Your task to perform on an android device: toggle improve location accuracy Image 0: 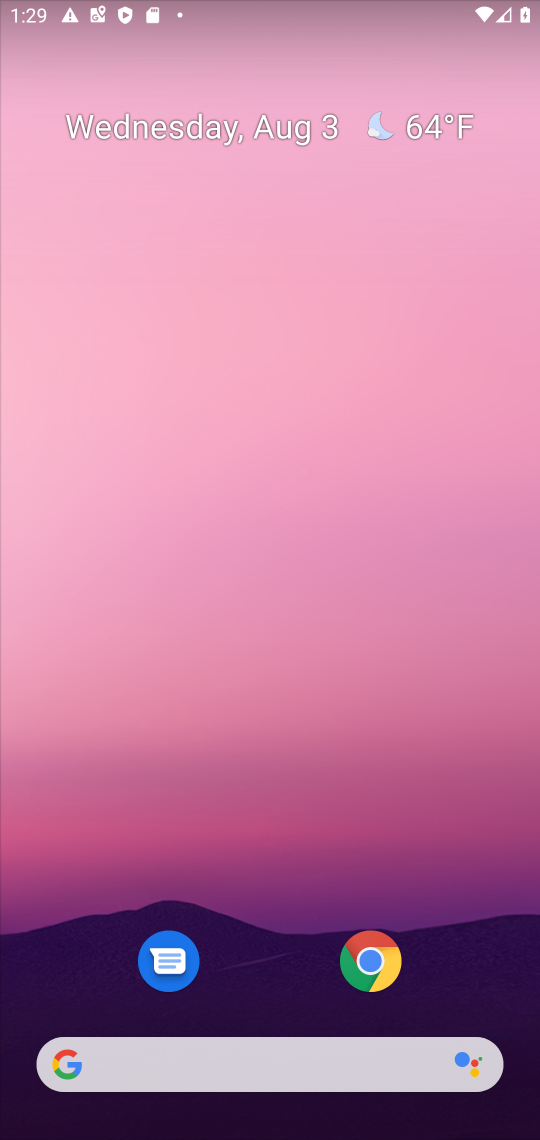
Step 0: drag from (302, 874) to (341, 56)
Your task to perform on an android device: toggle improve location accuracy Image 1: 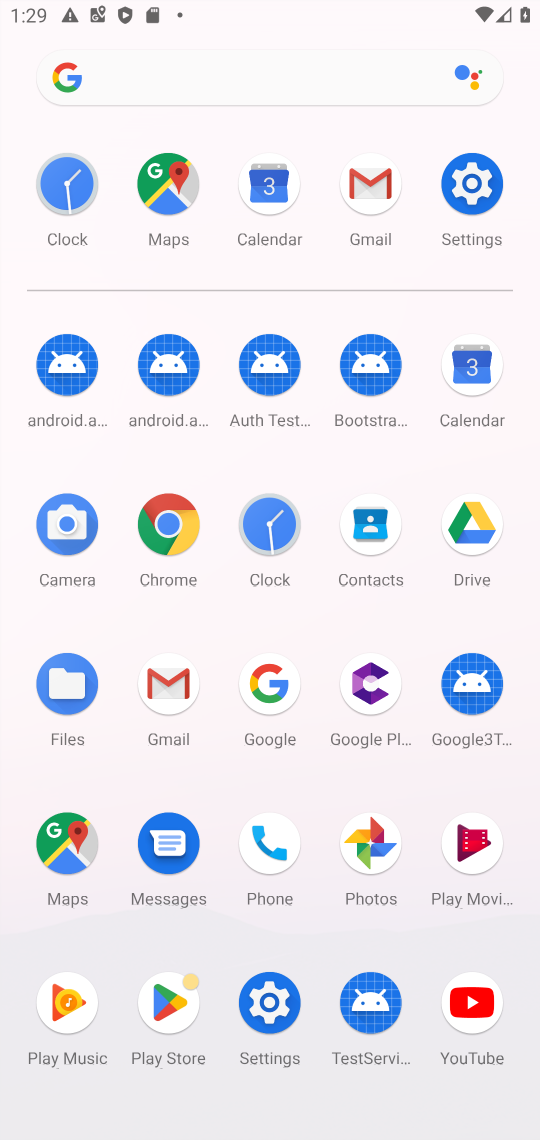
Step 1: click (464, 188)
Your task to perform on an android device: toggle improve location accuracy Image 2: 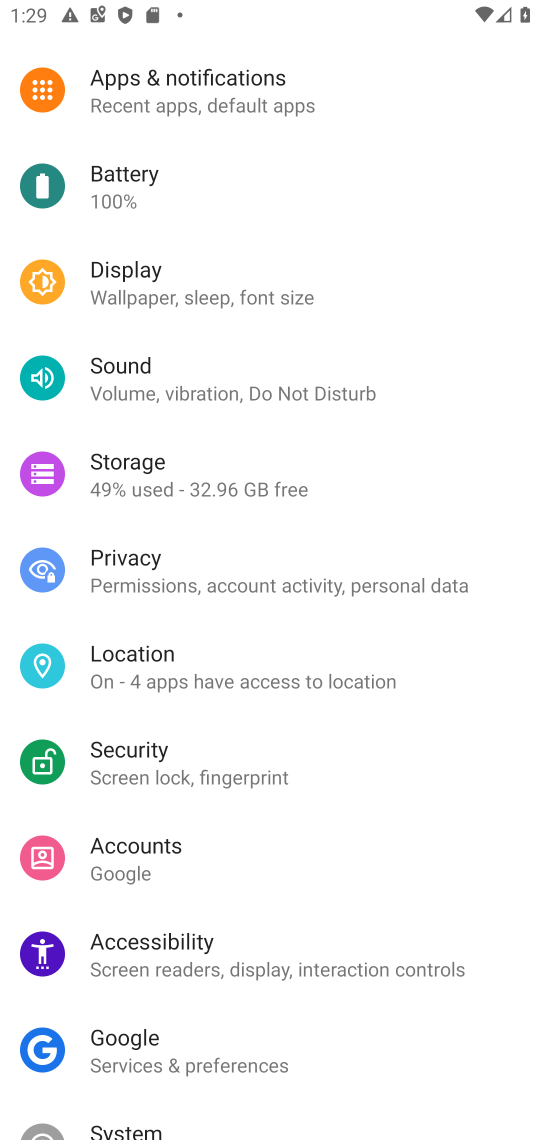
Step 2: click (141, 665)
Your task to perform on an android device: toggle improve location accuracy Image 3: 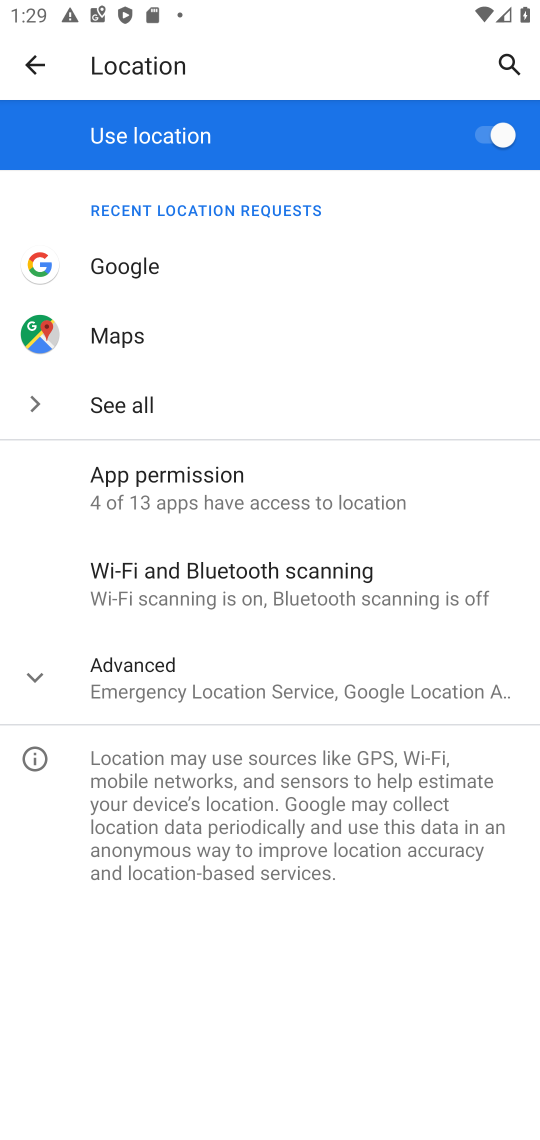
Step 3: click (35, 689)
Your task to perform on an android device: toggle improve location accuracy Image 4: 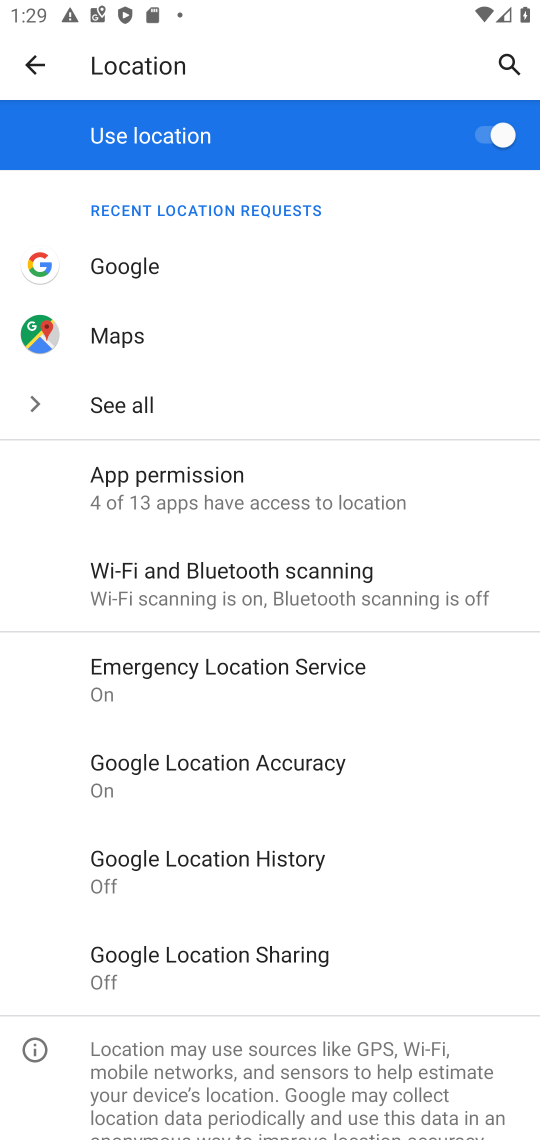
Step 4: click (246, 771)
Your task to perform on an android device: toggle improve location accuracy Image 5: 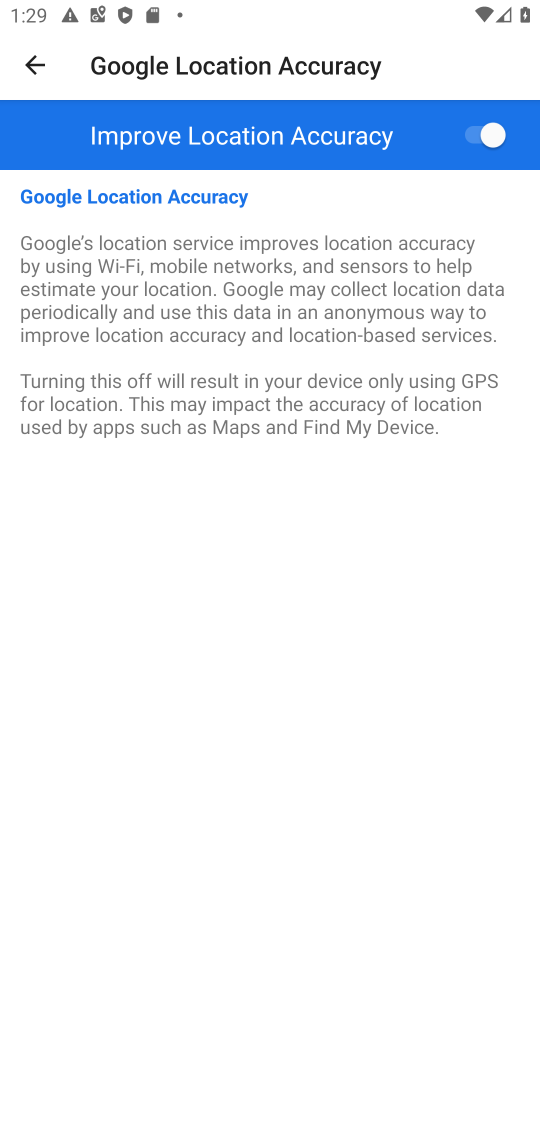
Step 5: click (488, 143)
Your task to perform on an android device: toggle improve location accuracy Image 6: 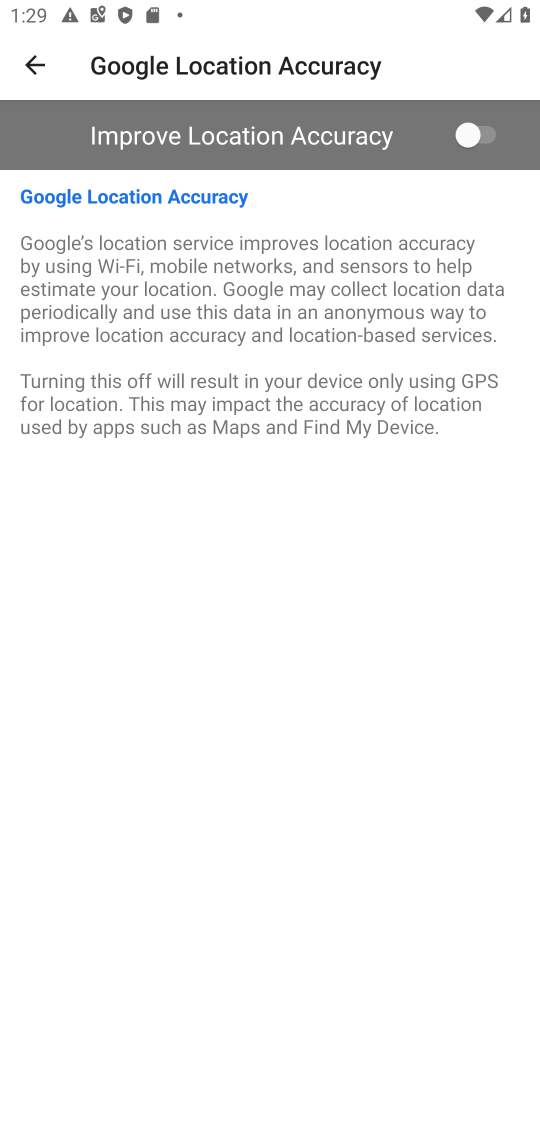
Step 6: task complete